Your task to perform on an android device: Show me popular games on the Play Store Image 0: 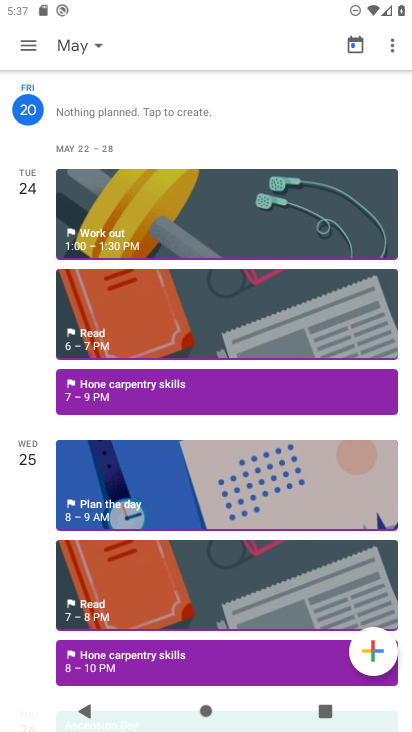
Step 0: press home button
Your task to perform on an android device: Show me popular games on the Play Store Image 1: 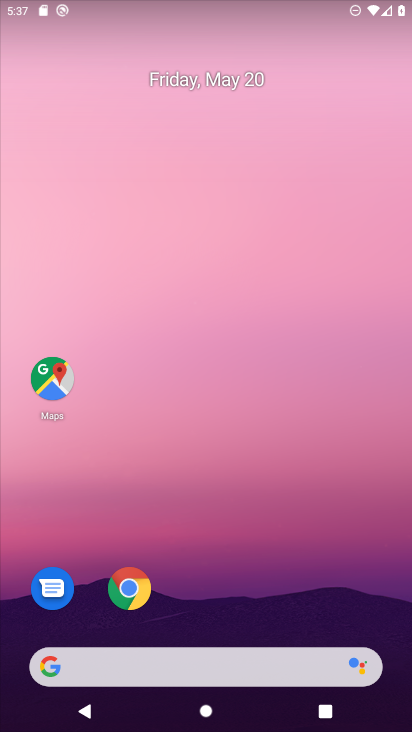
Step 1: drag from (215, 631) to (277, 220)
Your task to perform on an android device: Show me popular games on the Play Store Image 2: 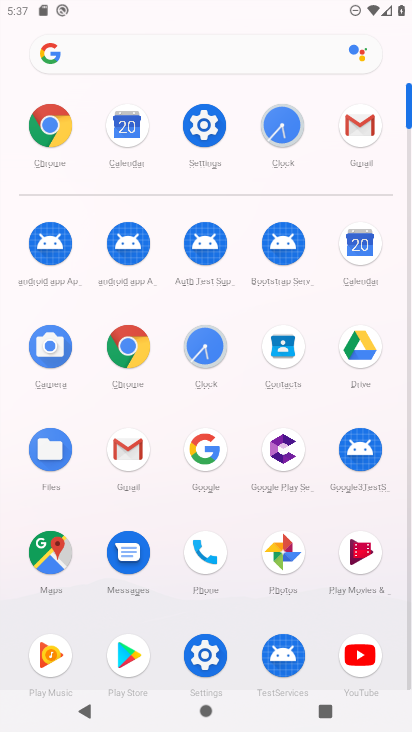
Step 2: click (126, 649)
Your task to perform on an android device: Show me popular games on the Play Store Image 3: 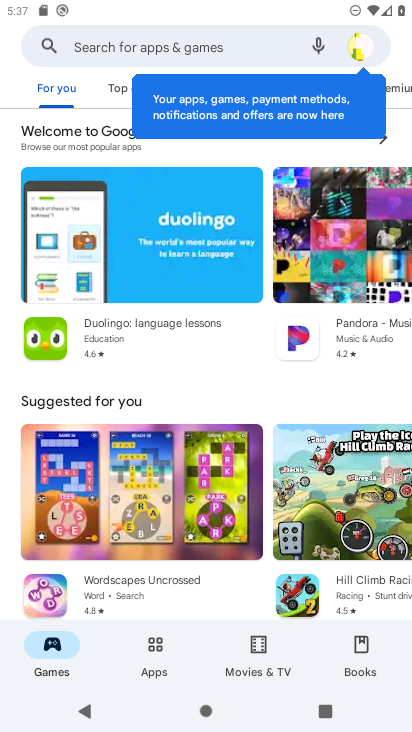
Step 3: task complete